Your task to perform on an android device: open sync settings in chrome Image 0: 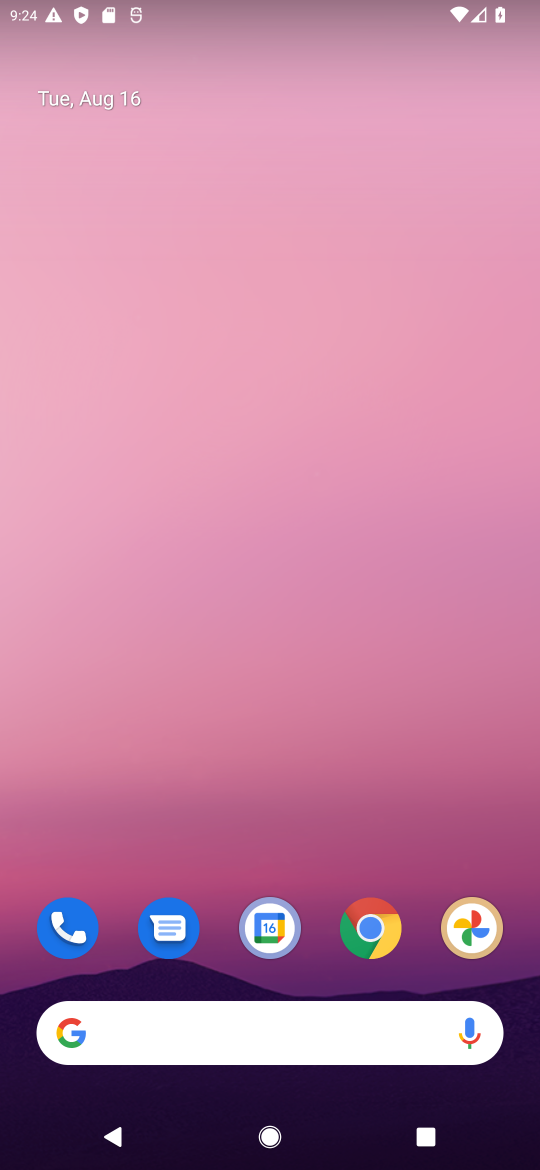
Step 0: press home button
Your task to perform on an android device: open sync settings in chrome Image 1: 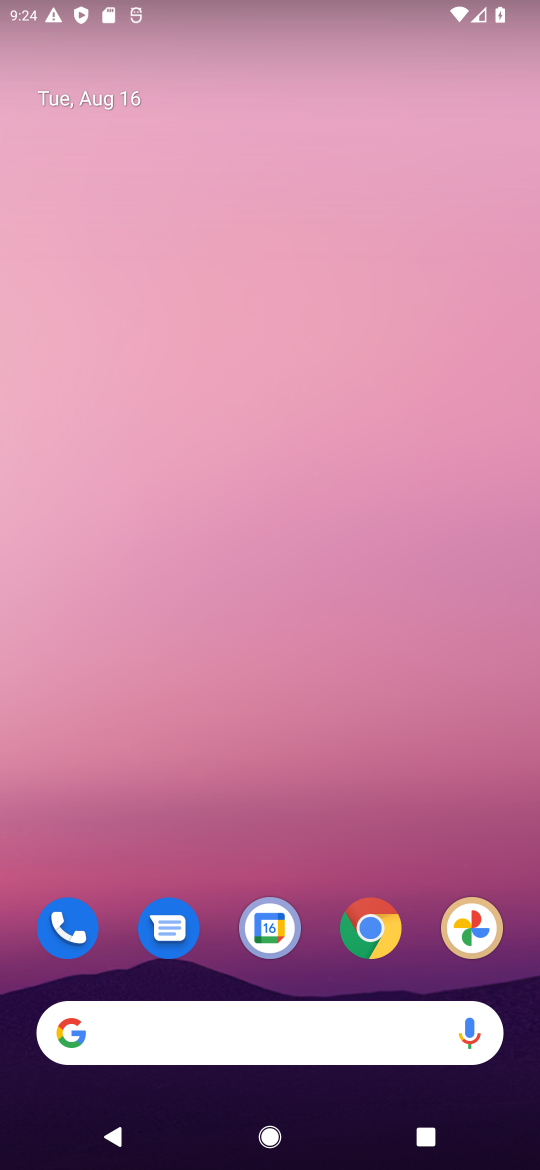
Step 1: click (374, 930)
Your task to perform on an android device: open sync settings in chrome Image 2: 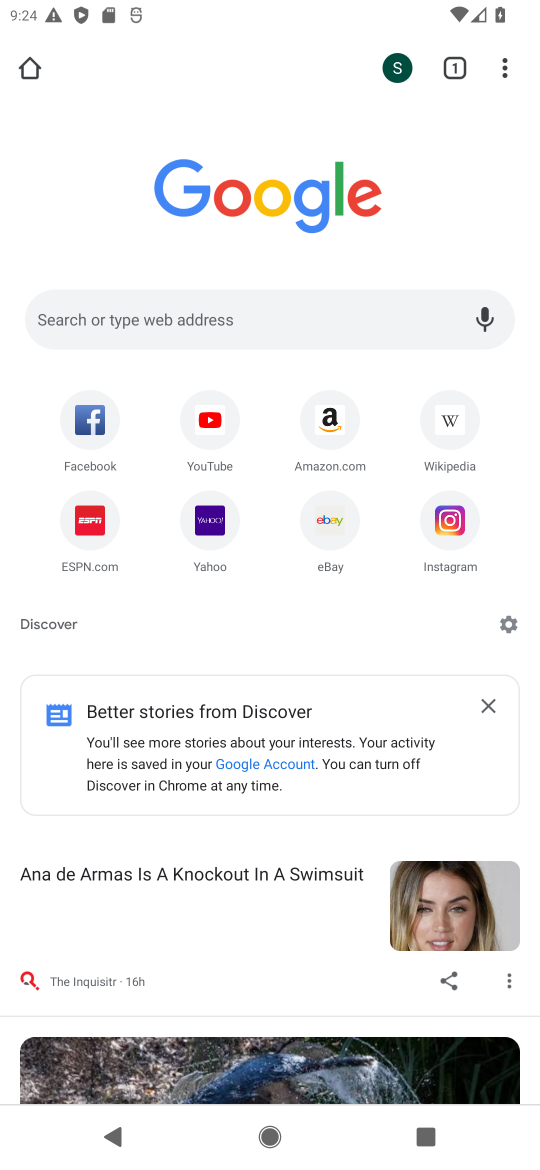
Step 2: drag from (504, 66) to (312, 599)
Your task to perform on an android device: open sync settings in chrome Image 3: 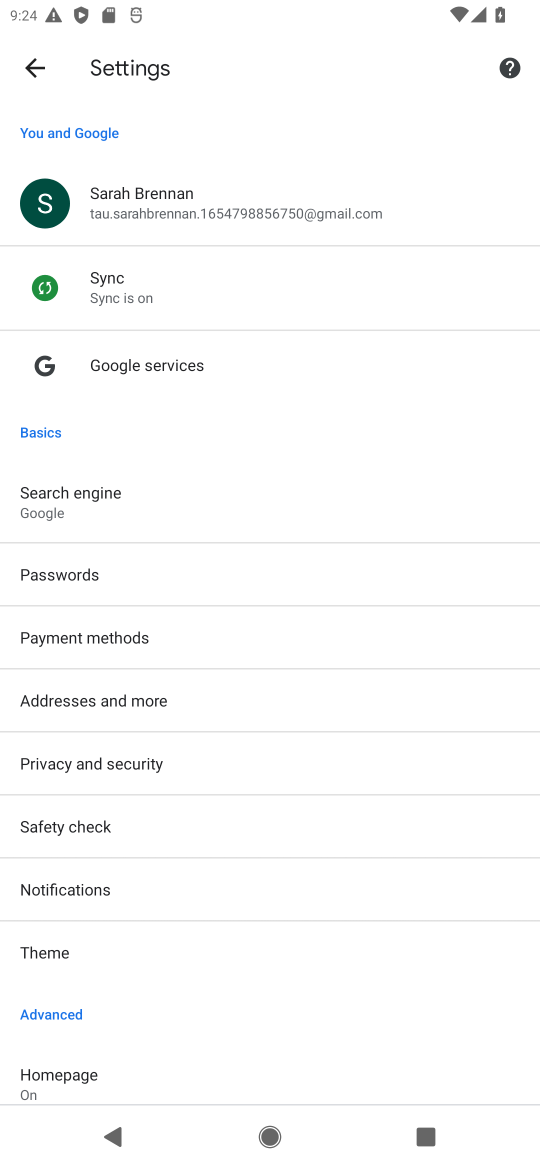
Step 3: drag from (122, 1013) to (141, 493)
Your task to perform on an android device: open sync settings in chrome Image 4: 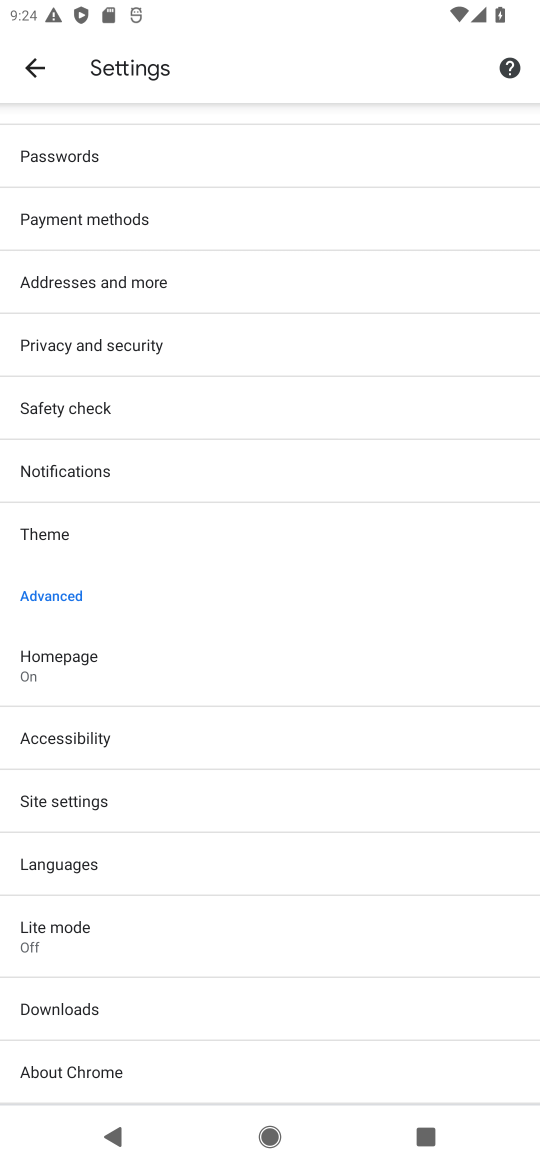
Step 4: click (128, 810)
Your task to perform on an android device: open sync settings in chrome Image 5: 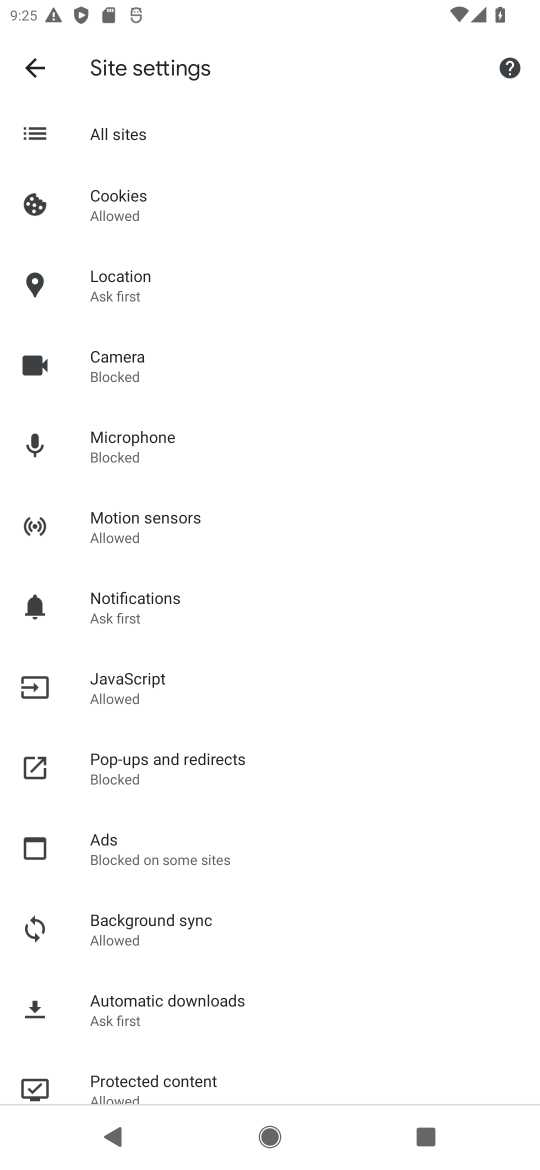
Step 5: click (169, 930)
Your task to perform on an android device: open sync settings in chrome Image 6: 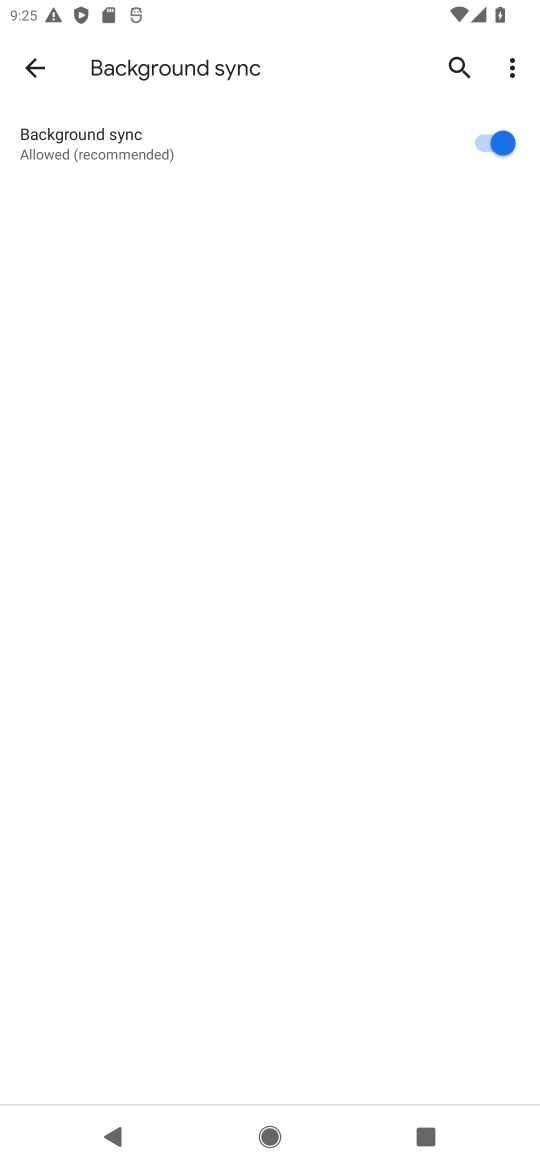
Step 6: task complete